Your task to perform on an android device: Add beats solo 3 to the cart on walmart, then select checkout. Image 0: 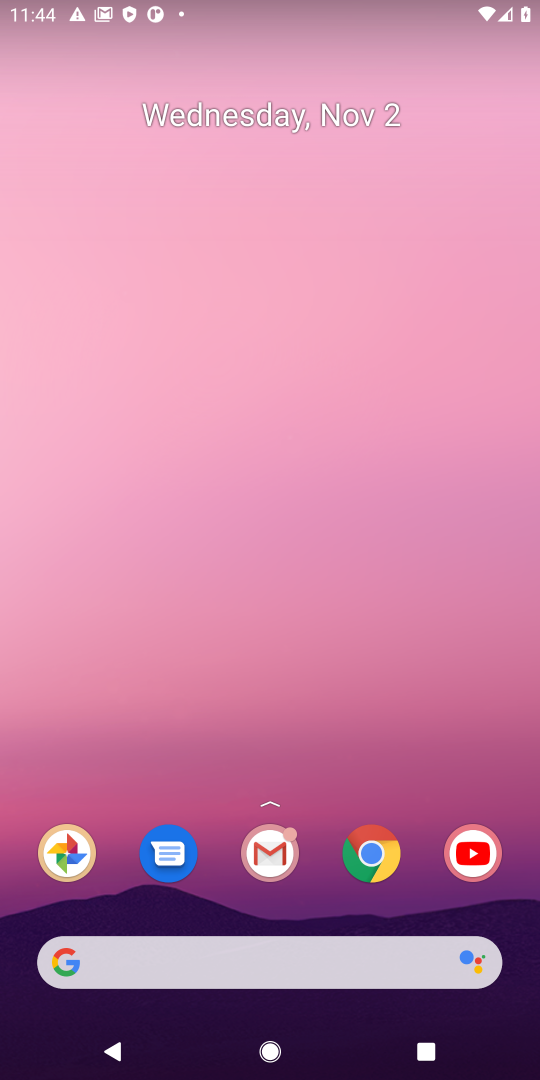
Step 0: click (370, 854)
Your task to perform on an android device: Add beats solo 3 to the cart on walmart, then select checkout. Image 1: 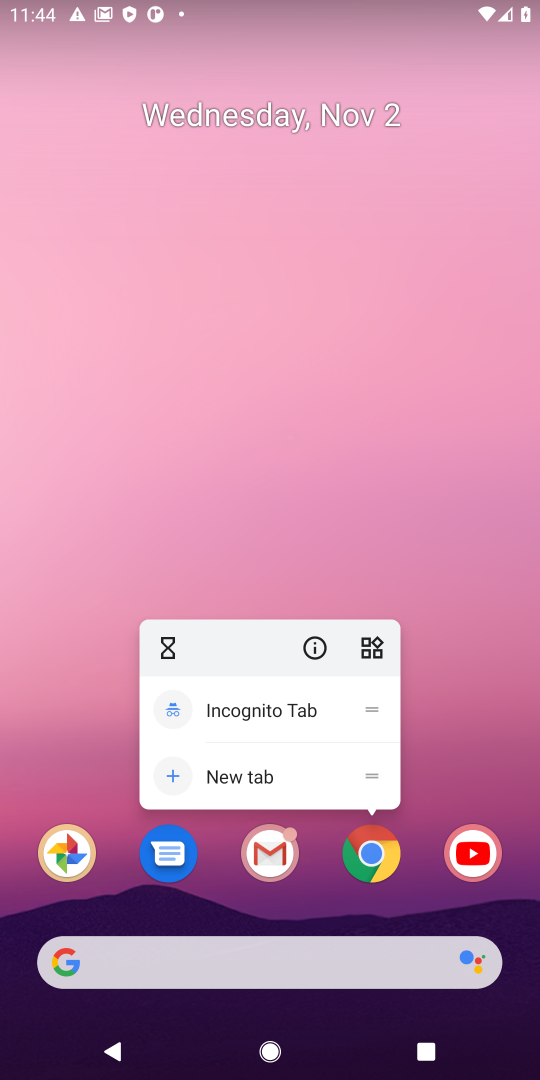
Step 1: click (370, 854)
Your task to perform on an android device: Add beats solo 3 to the cart on walmart, then select checkout. Image 2: 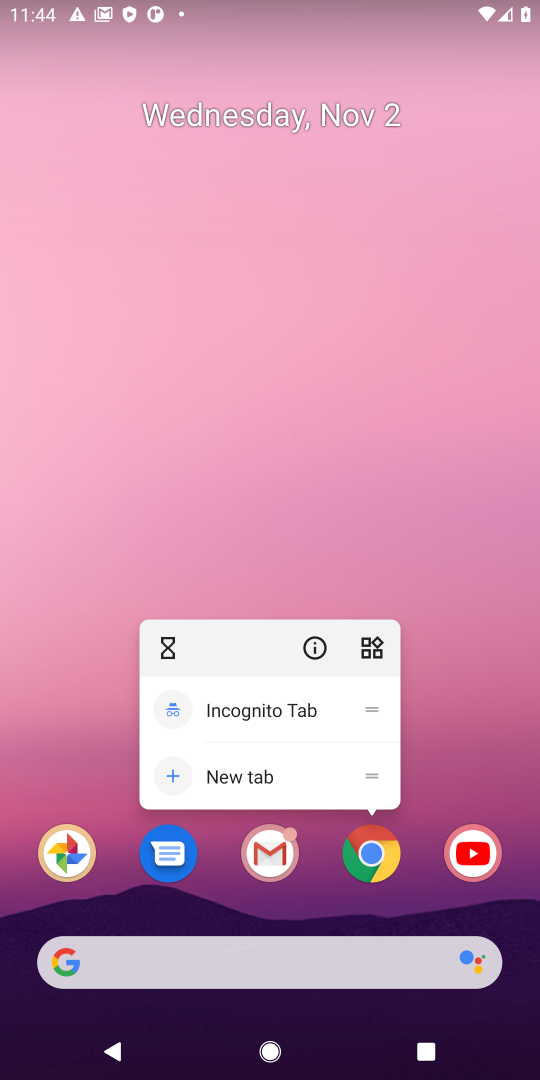
Step 2: click (370, 854)
Your task to perform on an android device: Add beats solo 3 to the cart on walmart, then select checkout. Image 3: 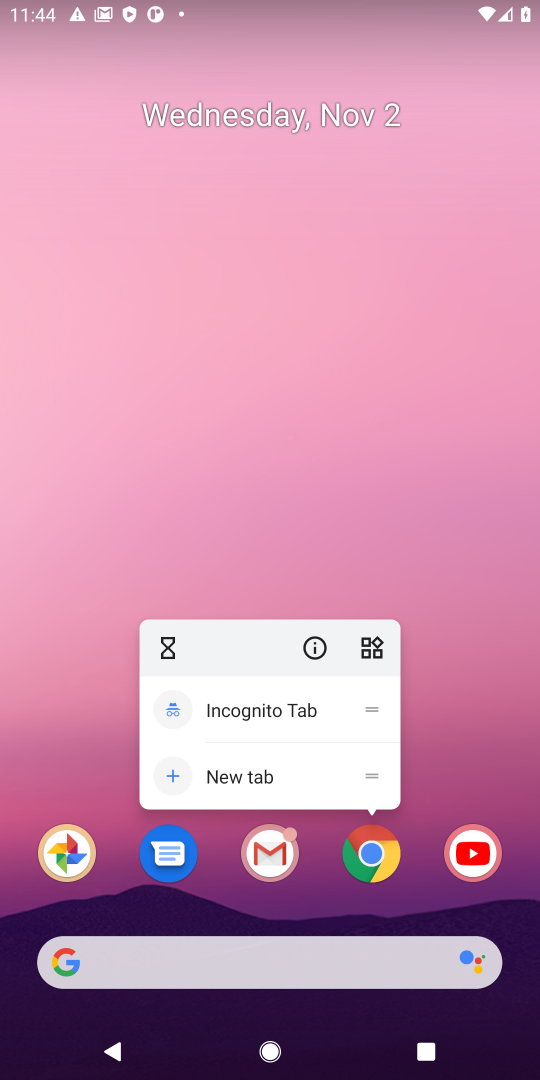
Step 3: click (370, 847)
Your task to perform on an android device: Add beats solo 3 to the cart on walmart, then select checkout. Image 4: 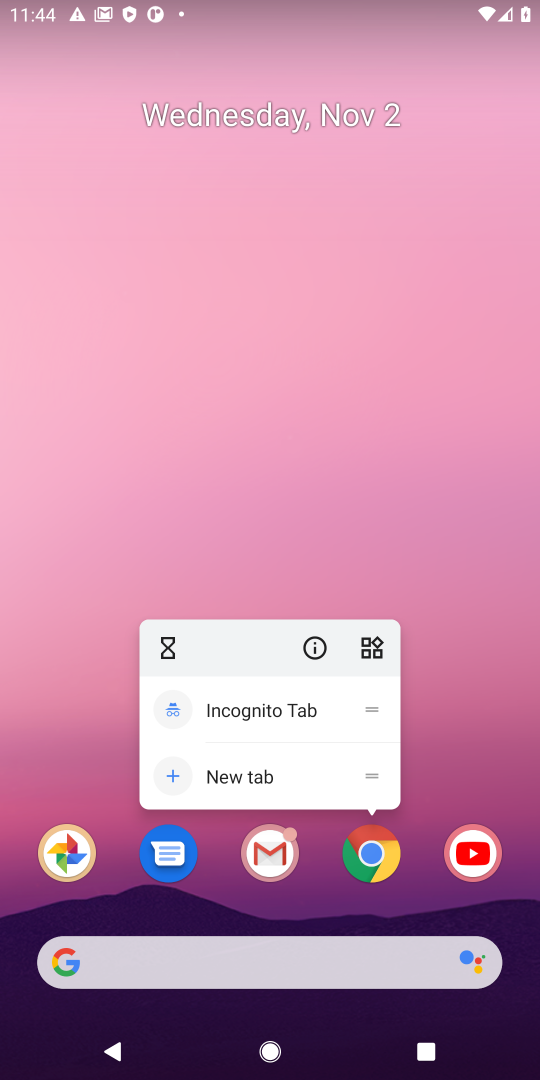
Step 4: click (376, 847)
Your task to perform on an android device: Add beats solo 3 to the cart on walmart, then select checkout. Image 5: 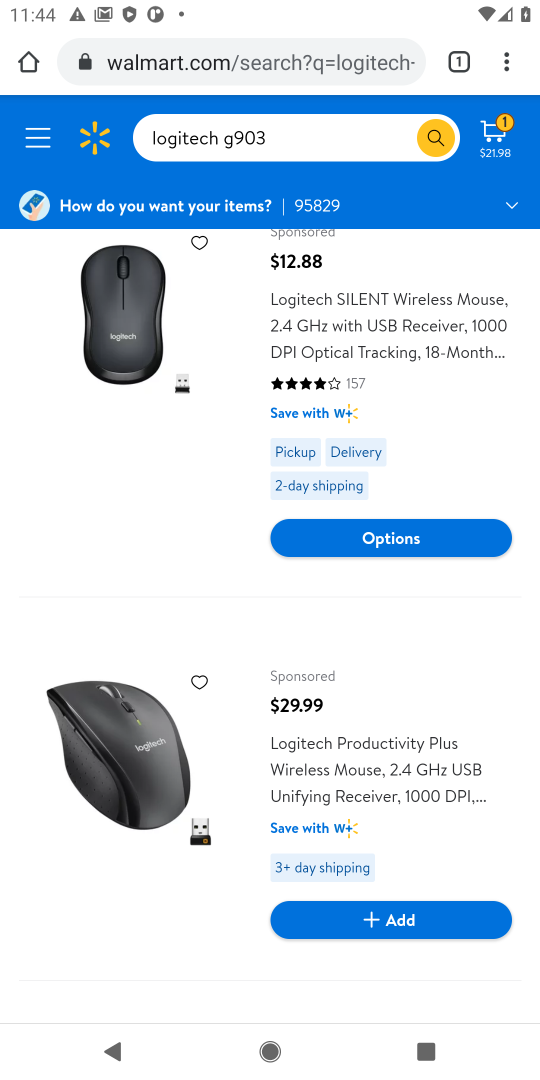
Step 5: click (290, 140)
Your task to perform on an android device: Add beats solo 3 to the cart on walmart, then select checkout. Image 6: 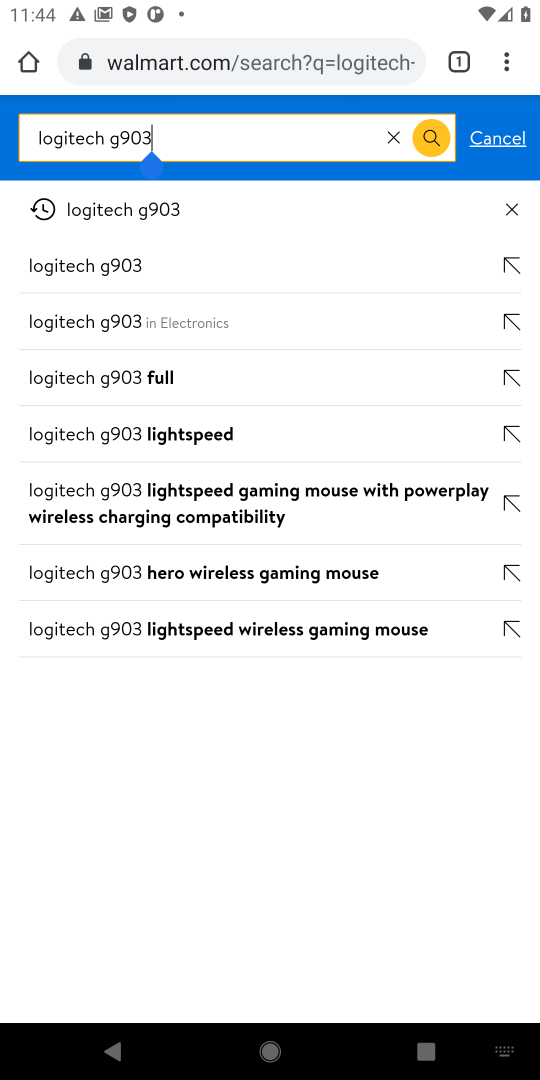
Step 6: click (389, 130)
Your task to perform on an android device: Add beats solo 3 to the cart on walmart, then select checkout. Image 7: 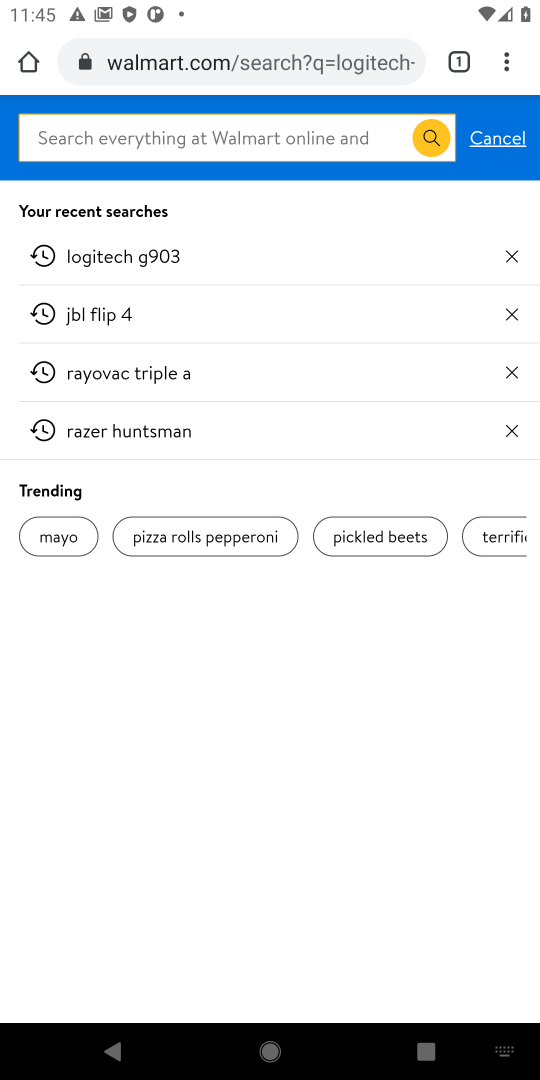
Step 7: type "beats solo 3"
Your task to perform on an android device: Add beats solo 3 to the cart on walmart, then select checkout. Image 8: 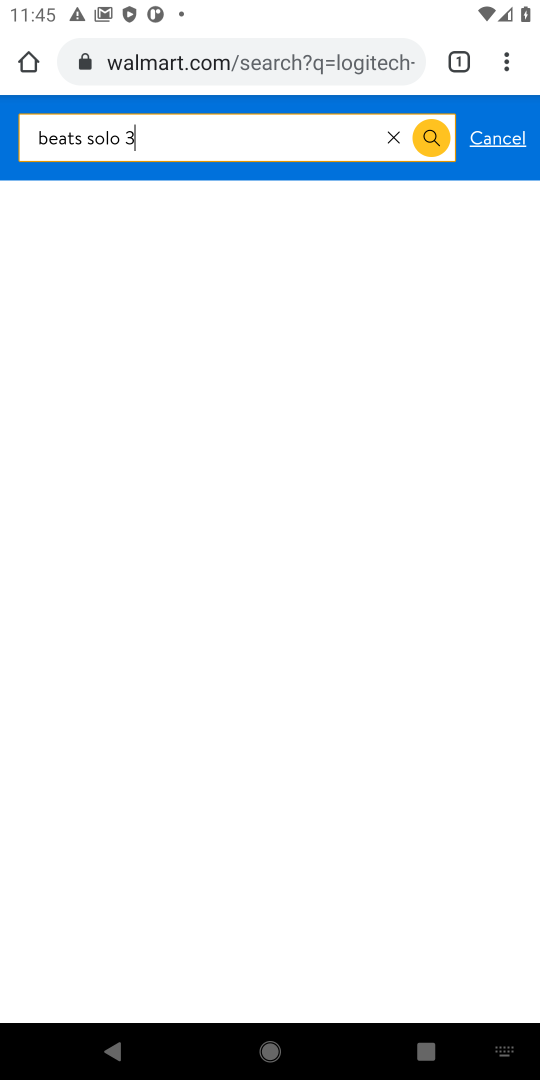
Step 8: press enter
Your task to perform on an android device: Add beats solo 3 to the cart on walmart, then select checkout. Image 9: 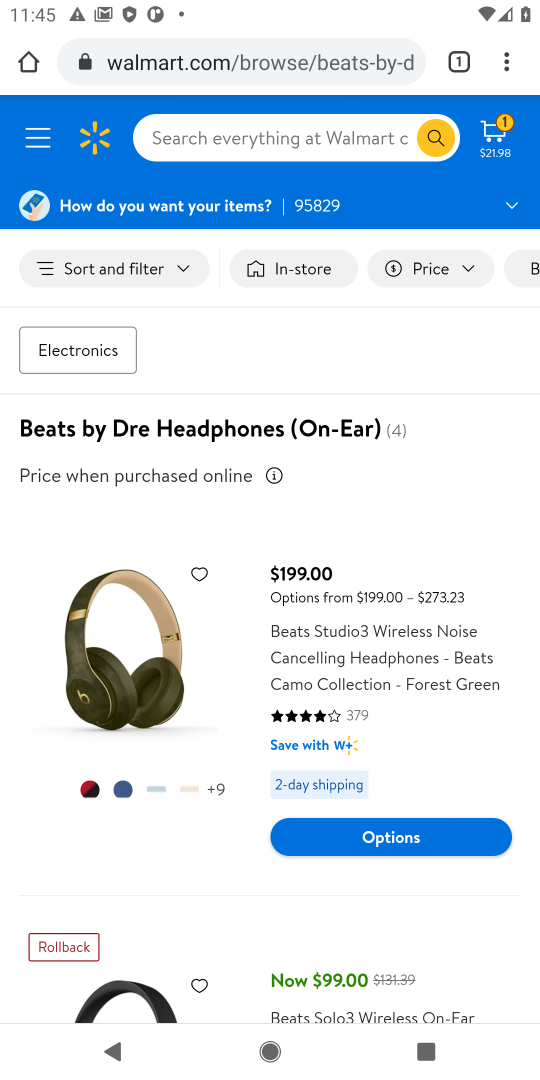
Step 9: drag from (341, 730) to (433, 365)
Your task to perform on an android device: Add beats solo 3 to the cart on walmart, then select checkout. Image 10: 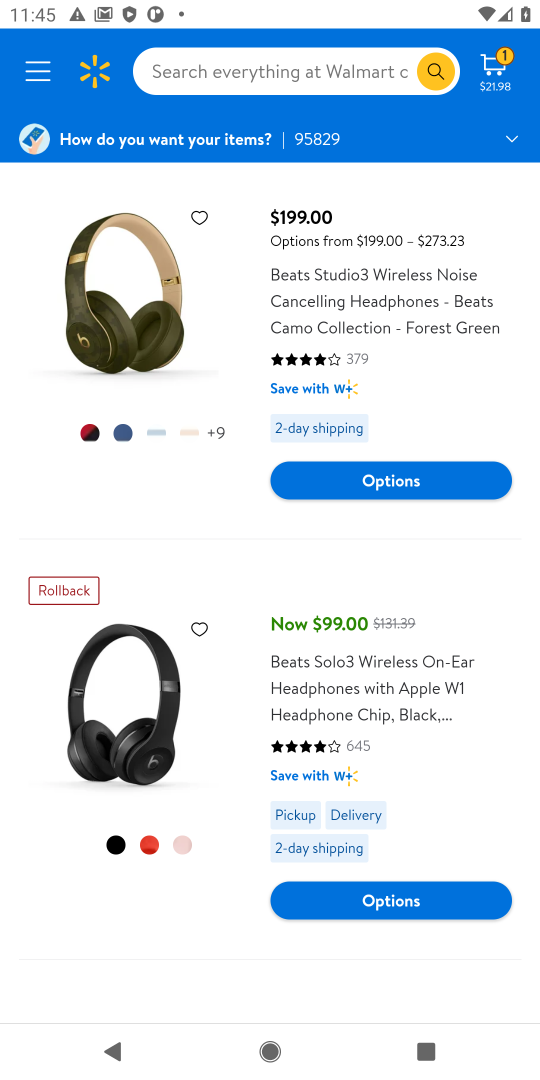
Step 10: click (345, 686)
Your task to perform on an android device: Add beats solo 3 to the cart on walmart, then select checkout. Image 11: 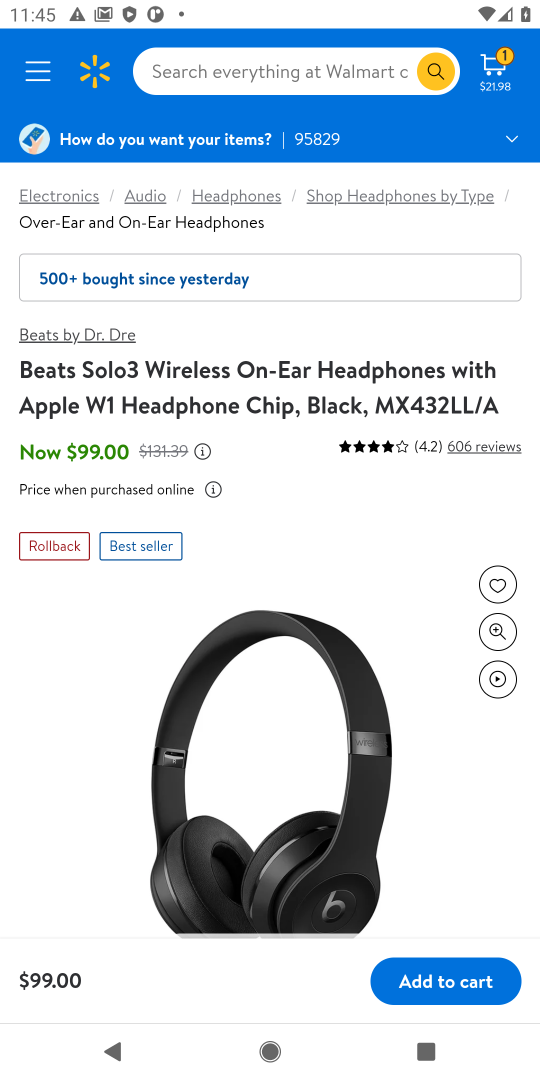
Step 11: click (450, 982)
Your task to perform on an android device: Add beats solo 3 to the cart on walmart, then select checkout. Image 12: 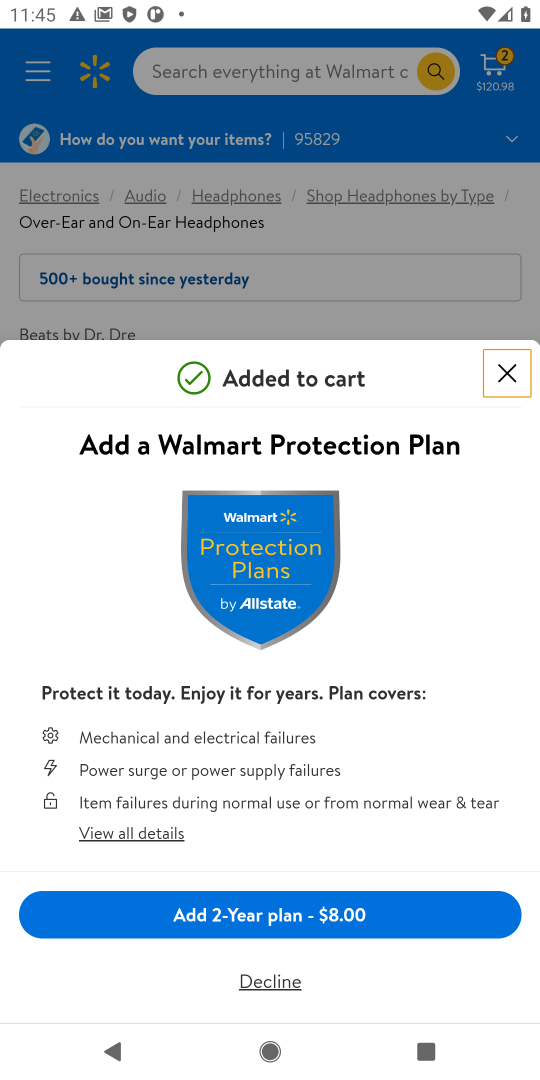
Step 12: click (509, 367)
Your task to perform on an android device: Add beats solo 3 to the cart on walmart, then select checkout. Image 13: 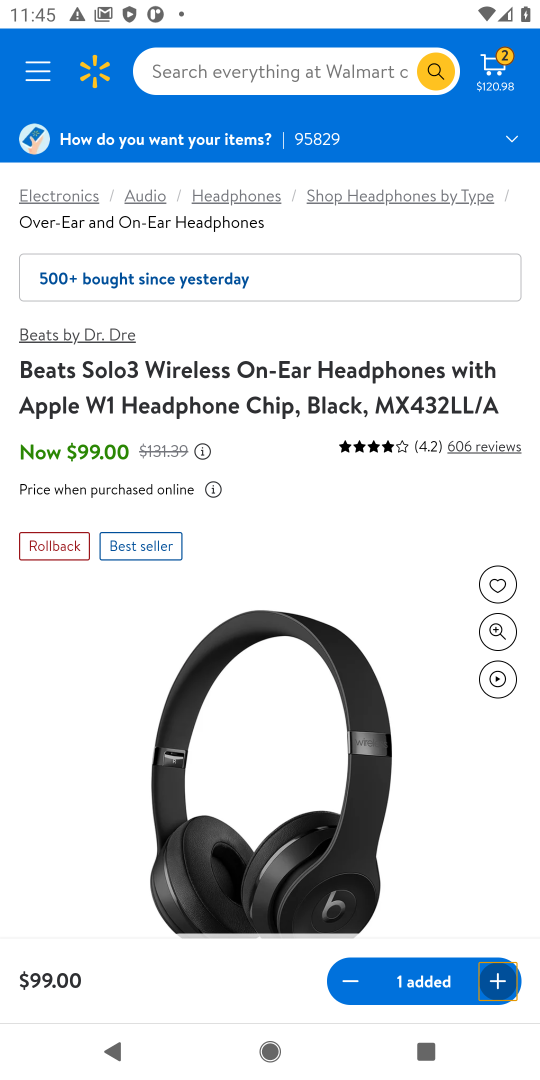
Step 13: click (499, 68)
Your task to perform on an android device: Add beats solo 3 to the cart on walmart, then select checkout. Image 14: 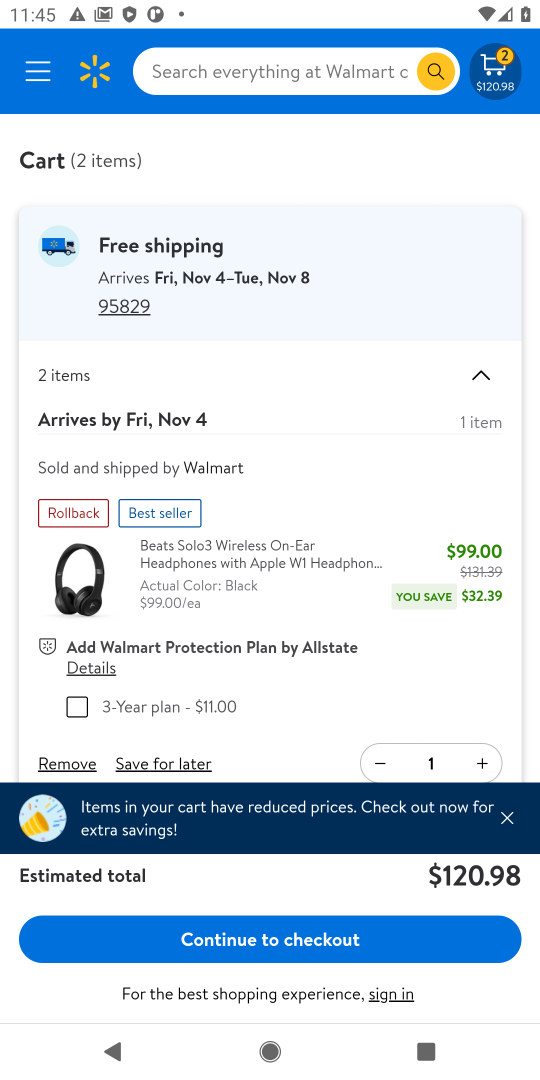
Step 14: drag from (263, 657) to (478, 286)
Your task to perform on an android device: Add beats solo 3 to the cart on walmart, then select checkout. Image 15: 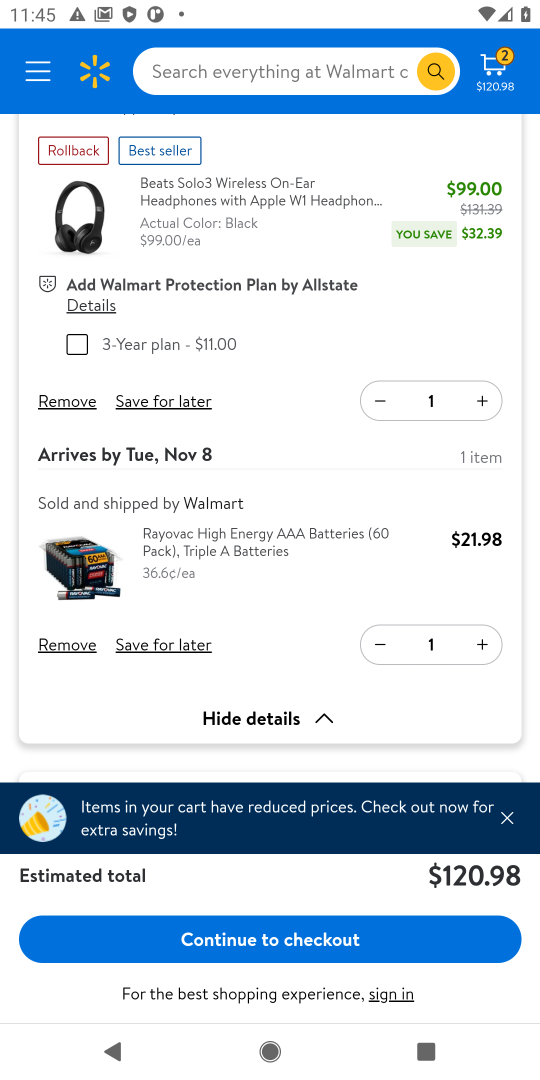
Step 15: drag from (270, 742) to (438, 259)
Your task to perform on an android device: Add beats solo 3 to the cart on walmart, then select checkout. Image 16: 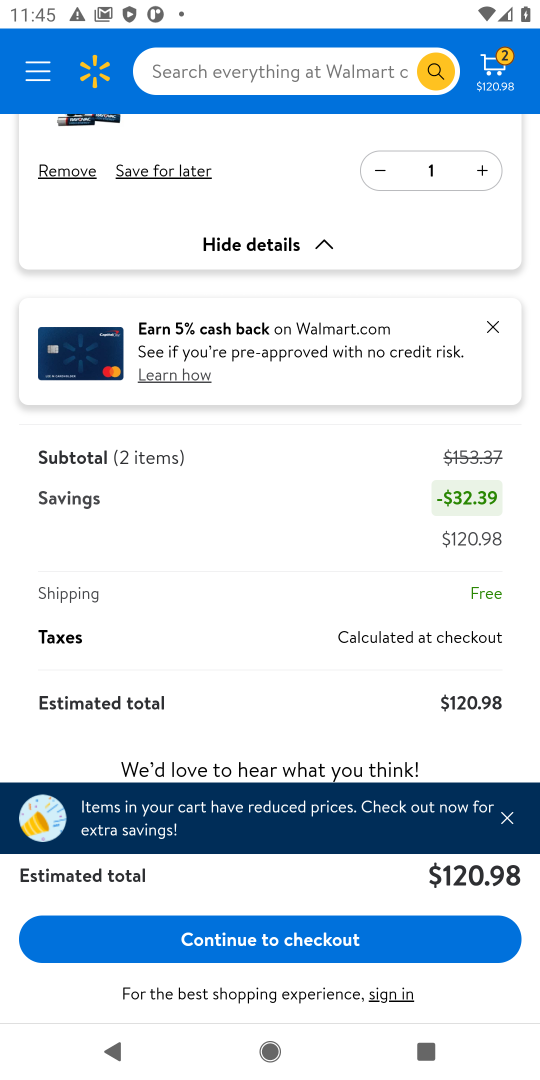
Step 16: drag from (193, 384) to (199, 622)
Your task to perform on an android device: Add beats solo 3 to the cart on walmart, then select checkout. Image 17: 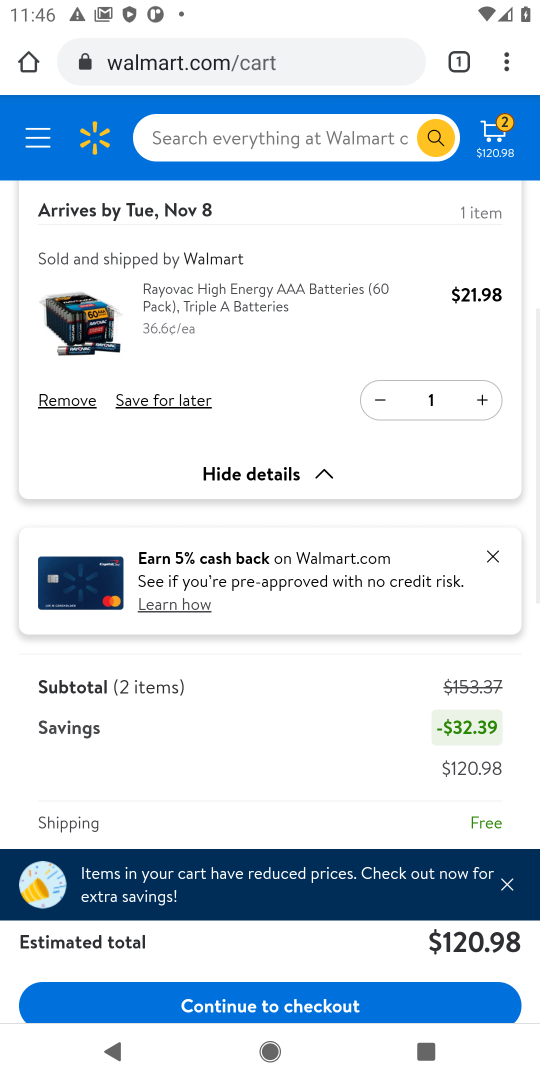
Step 17: click (47, 401)
Your task to perform on an android device: Add beats solo 3 to the cart on walmart, then select checkout. Image 18: 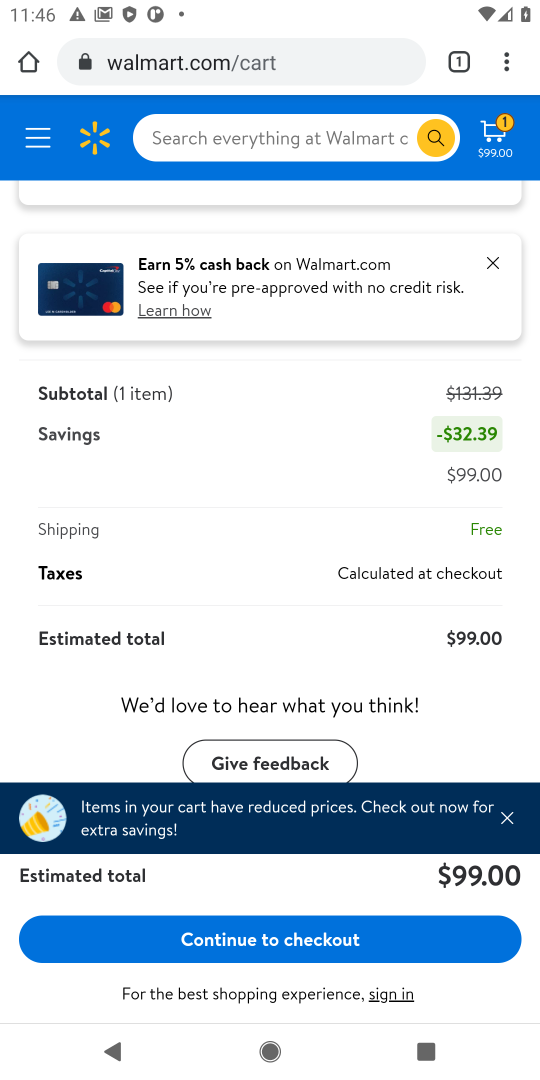
Step 18: click (292, 944)
Your task to perform on an android device: Add beats solo 3 to the cart on walmart, then select checkout. Image 19: 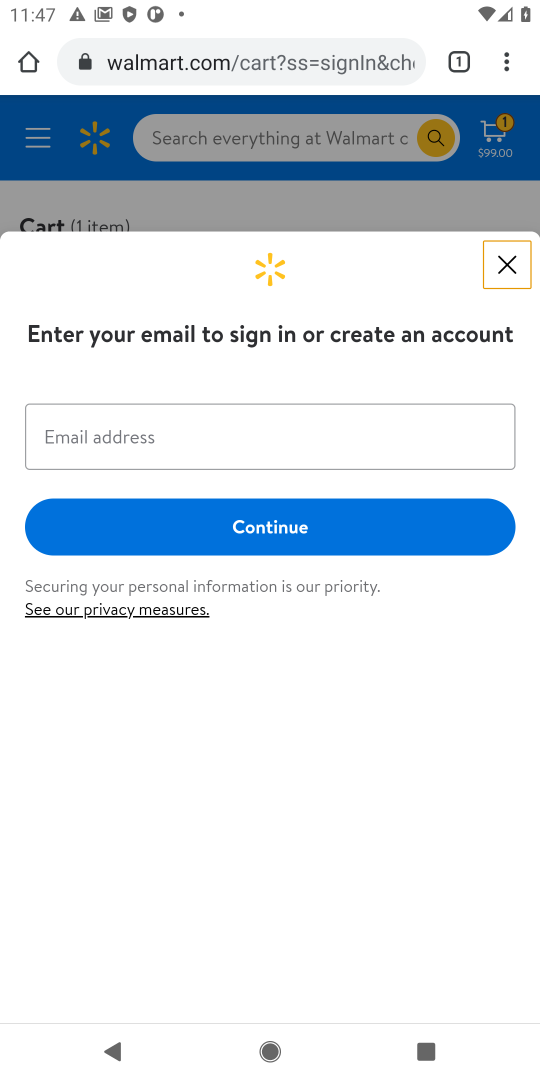
Step 19: task complete